Your task to perform on an android device: change keyboard looks Image 0: 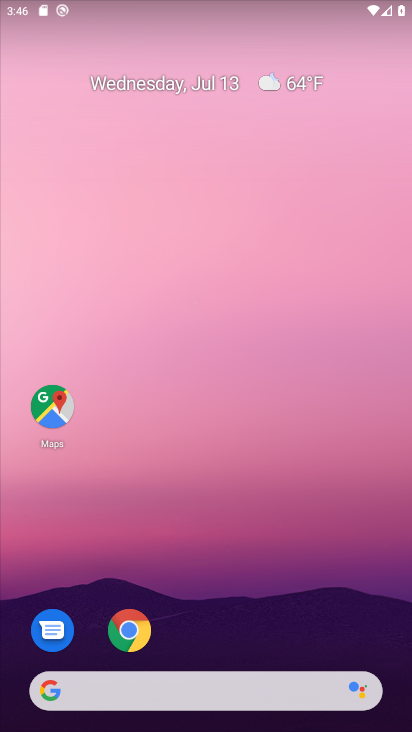
Step 0: drag from (211, 662) to (226, 66)
Your task to perform on an android device: change keyboard looks Image 1: 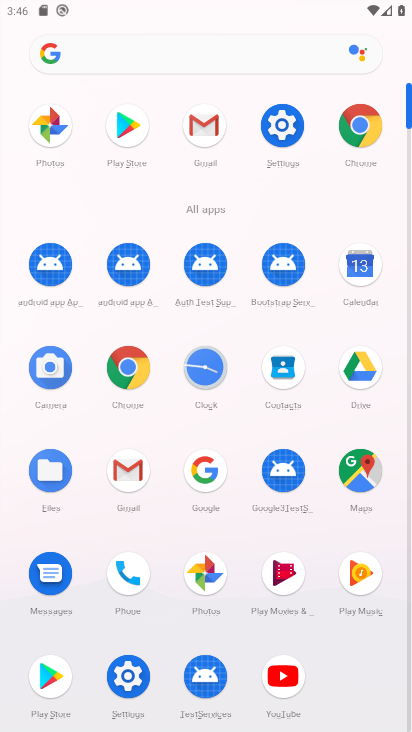
Step 1: click (292, 114)
Your task to perform on an android device: change keyboard looks Image 2: 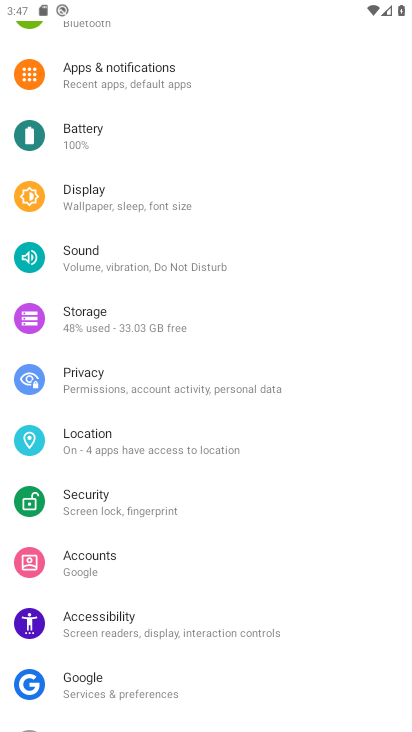
Step 2: drag from (134, 700) to (201, 168)
Your task to perform on an android device: change keyboard looks Image 3: 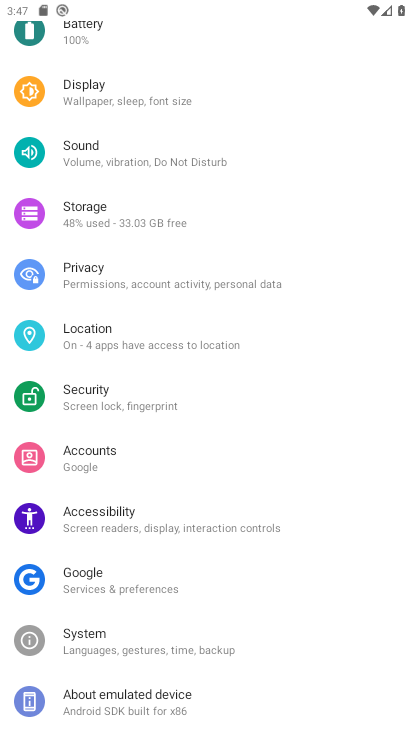
Step 3: click (138, 639)
Your task to perform on an android device: change keyboard looks Image 4: 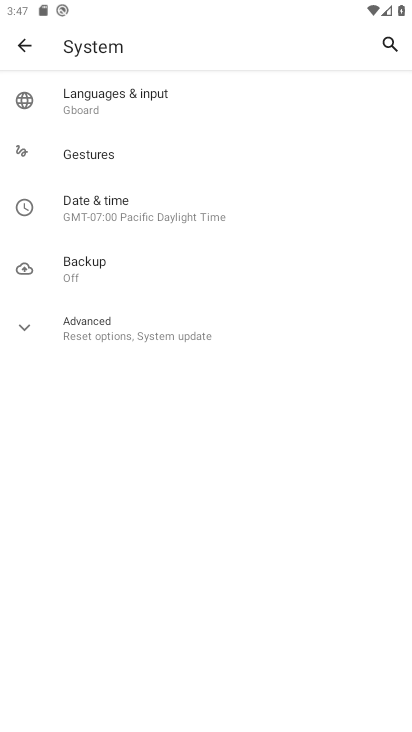
Step 4: click (120, 92)
Your task to perform on an android device: change keyboard looks Image 5: 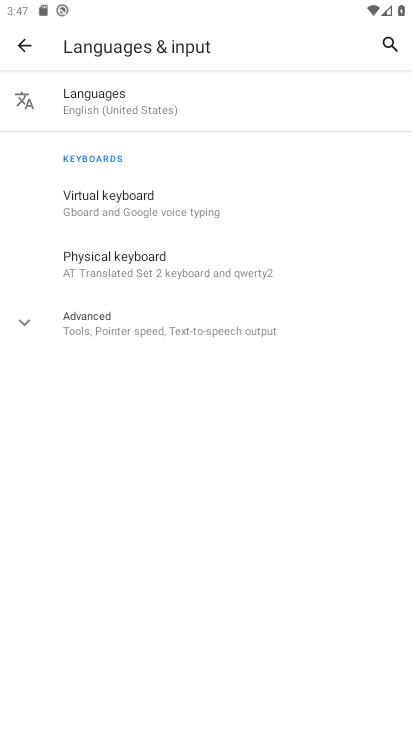
Step 5: click (139, 211)
Your task to perform on an android device: change keyboard looks Image 6: 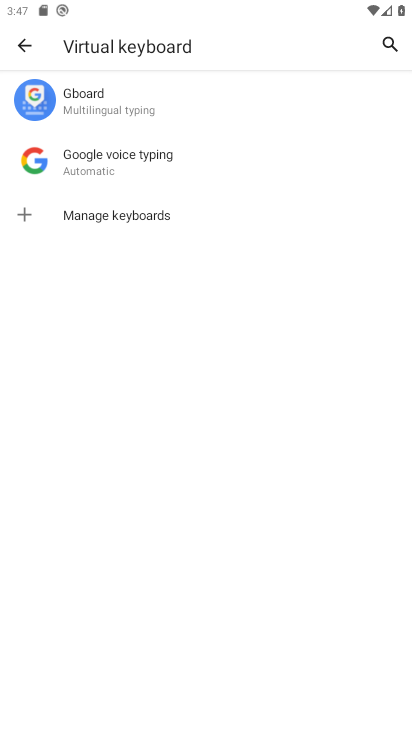
Step 6: click (92, 109)
Your task to perform on an android device: change keyboard looks Image 7: 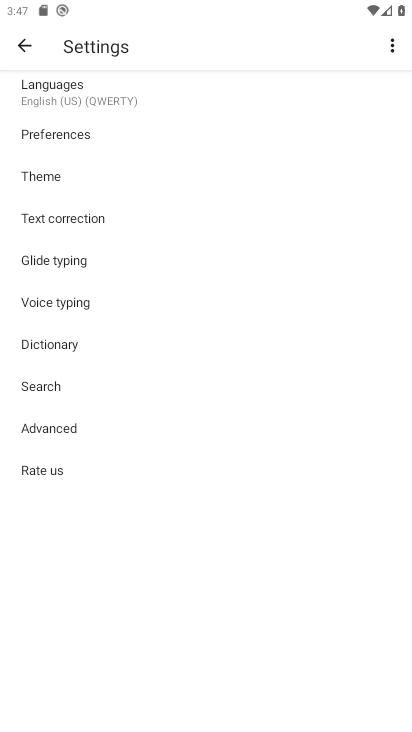
Step 7: click (66, 175)
Your task to perform on an android device: change keyboard looks Image 8: 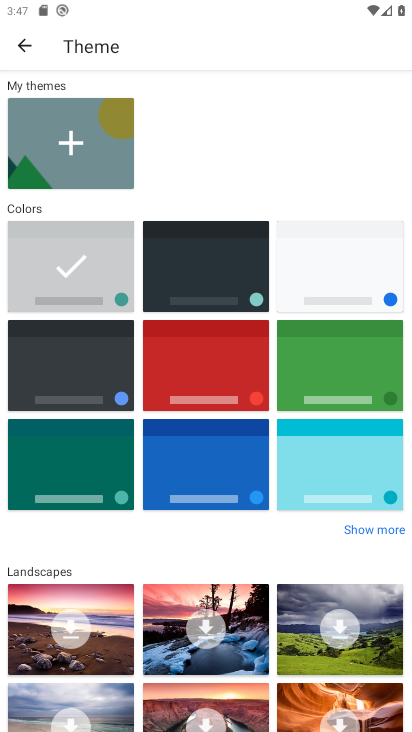
Step 8: click (209, 342)
Your task to perform on an android device: change keyboard looks Image 9: 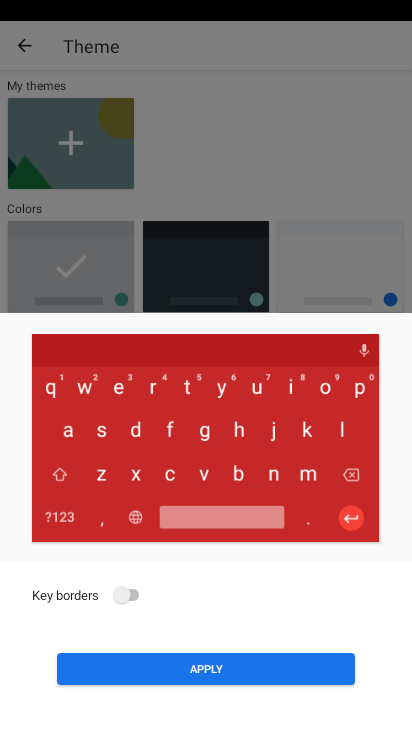
Step 9: click (205, 664)
Your task to perform on an android device: change keyboard looks Image 10: 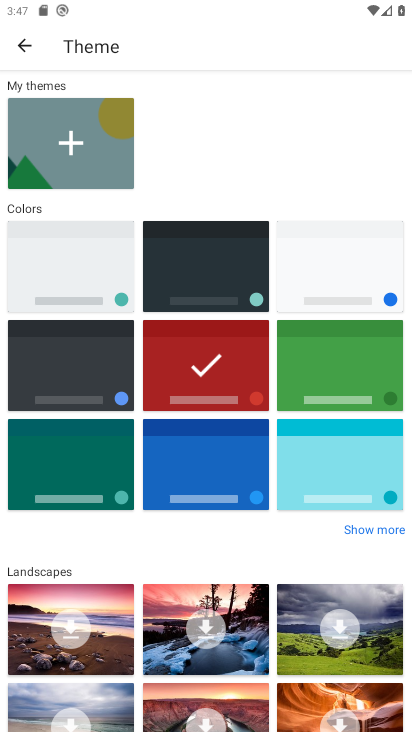
Step 10: task complete